Your task to perform on an android device: Open location settings Image 0: 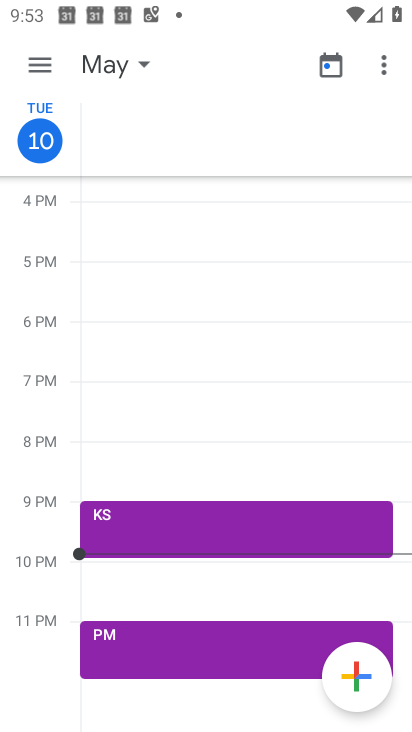
Step 0: press home button
Your task to perform on an android device: Open location settings Image 1: 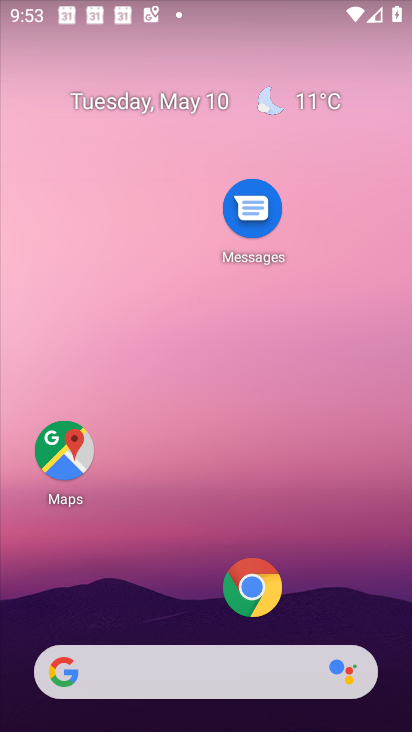
Step 1: drag from (166, 518) to (201, 114)
Your task to perform on an android device: Open location settings Image 2: 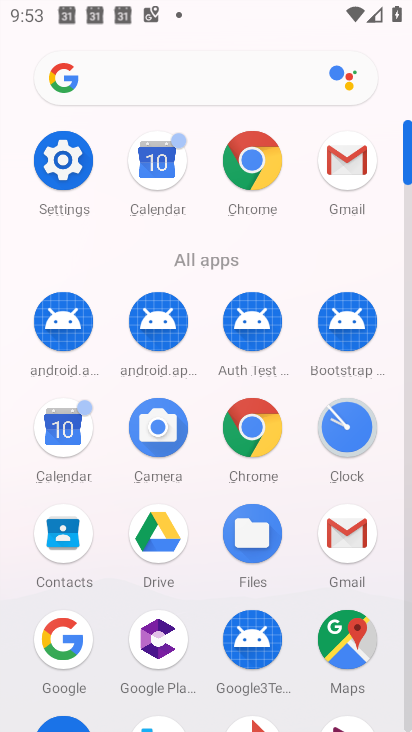
Step 2: click (59, 175)
Your task to perform on an android device: Open location settings Image 3: 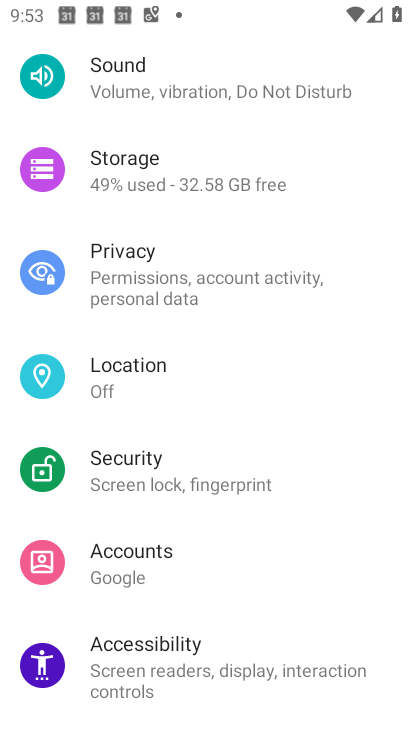
Step 3: click (120, 371)
Your task to perform on an android device: Open location settings Image 4: 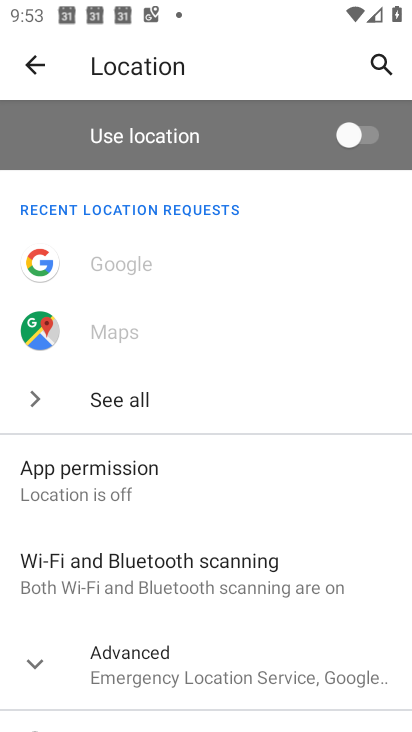
Step 4: task complete